Your task to perform on an android device: turn on location history Image 0: 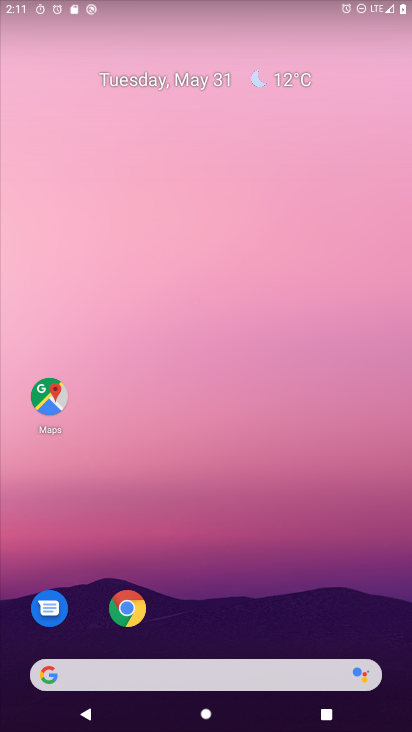
Step 0: click (43, 405)
Your task to perform on an android device: turn on location history Image 1: 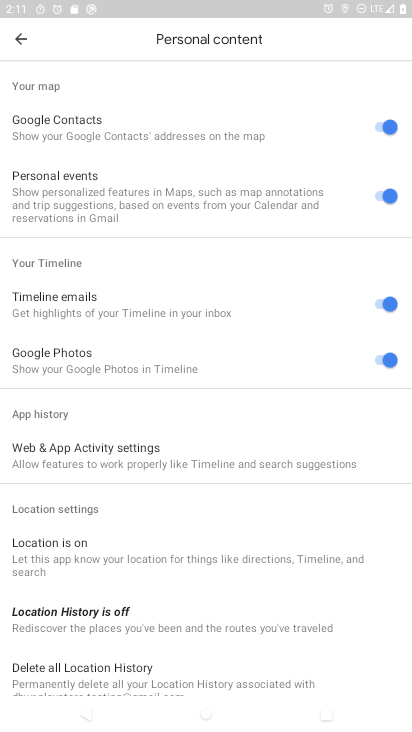
Step 1: click (99, 616)
Your task to perform on an android device: turn on location history Image 2: 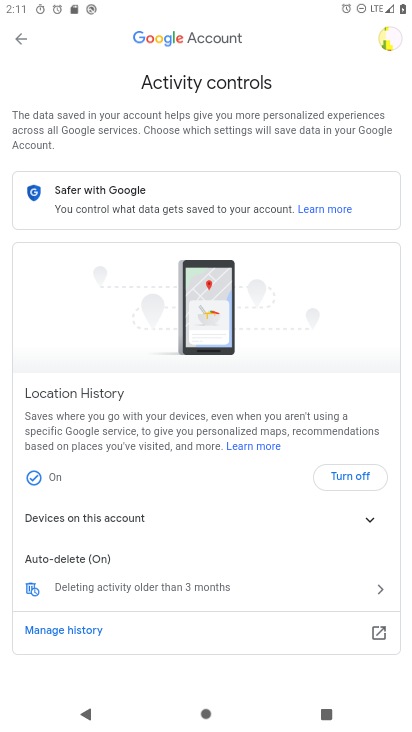
Step 2: task complete